Your task to perform on an android device: Search for seafood restaurants on Google Maps Image 0: 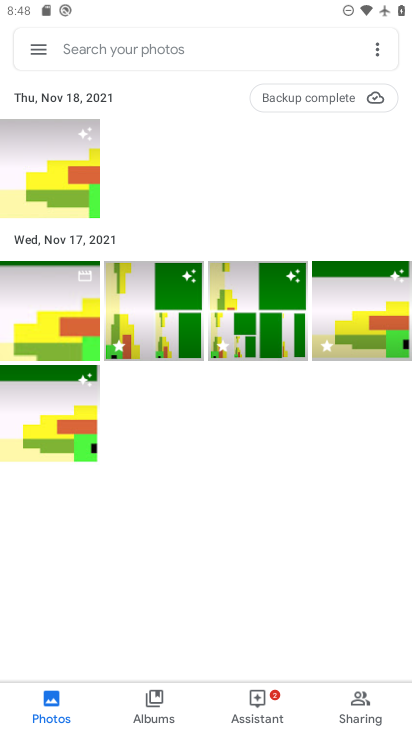
Step 0: press home button
Your task to perform on an android device: Search for seafood restaurants on Google Maps Image 1: 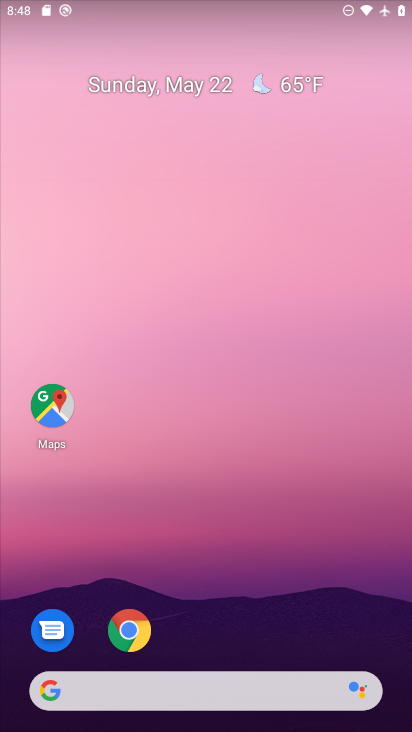
Step 1: click (50, 412)
Your task to perform on an android device: Search for seafood restaurants on Google Maps Image 2: 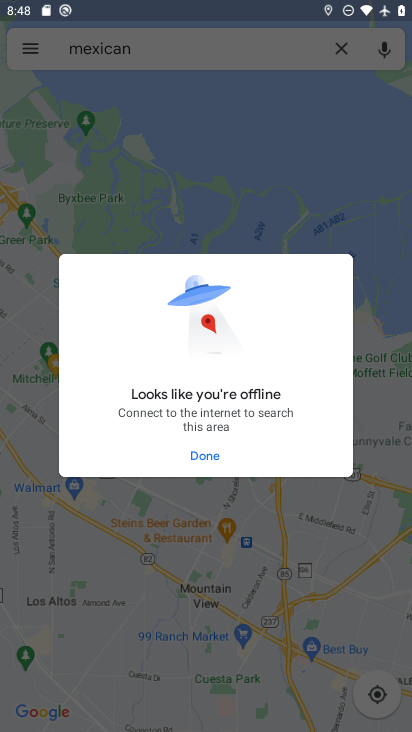
Step 2: click (215, 453)
Your task to perform on an android device: Search for seafood restaurants on Google Maps Image 3: 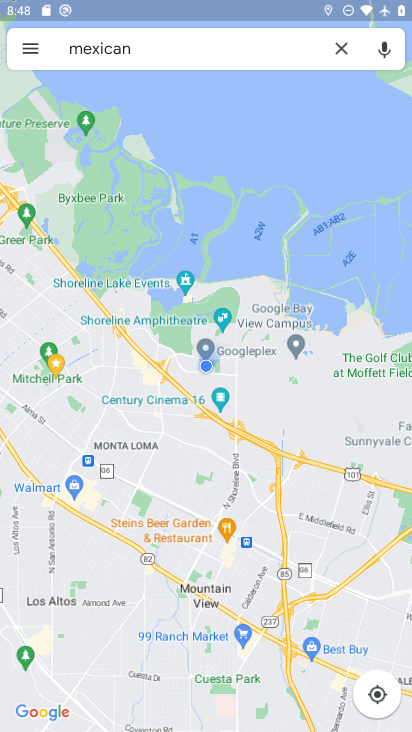
Step 3: click (337, 44)
Your task to perform on an android device: Search for seafood restaurants on Google Maps Image 4: 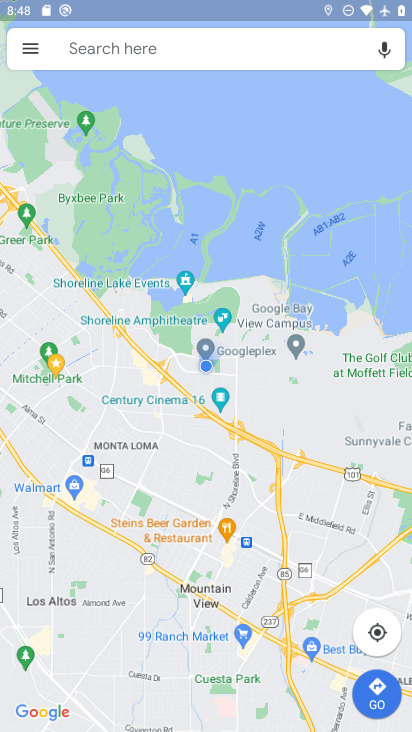
Step 4: click (185, 53)
Your task to perform on an android device: Search for seafood restaurants on Google Maps Image 5: 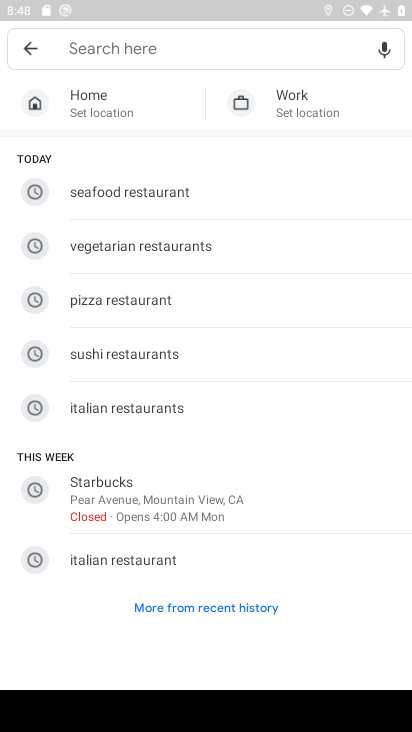
Step 5: click (154, 193)
Your task to perform on an android device: Search for seafood restaurants on Google Maps Image 6: 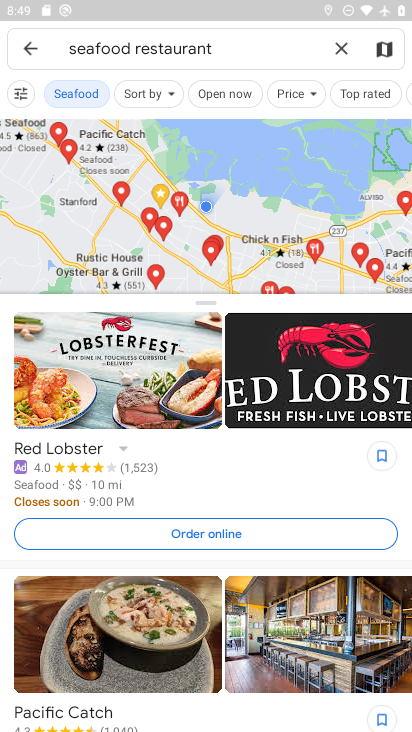
Step 6: task complete